Your task to perform on an android device: When is my next appointment? Image 0: 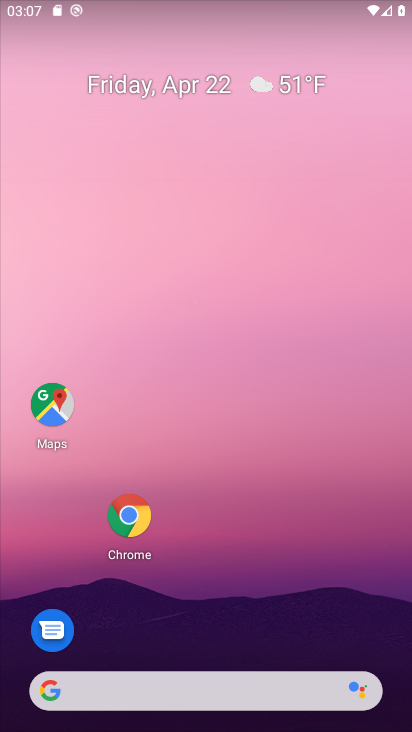
Step 0: click (386, 190)
Your task to perform on an android device: When is my next appointment? Image 1: 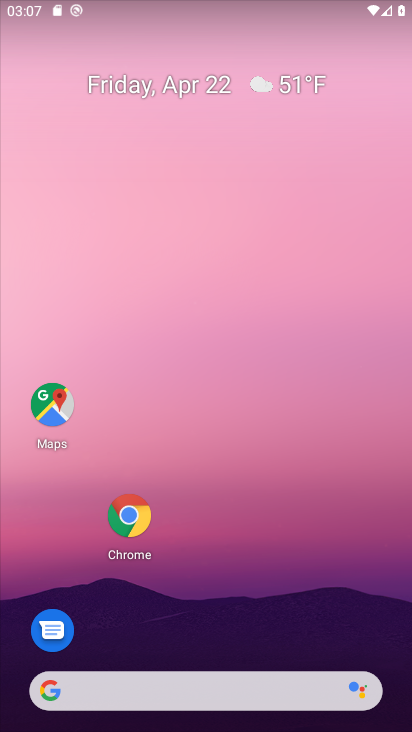
Step 1: drag from (336, 473) to (335, 118)
Your task to perform on an android device: When is my next appointment? Image 2: 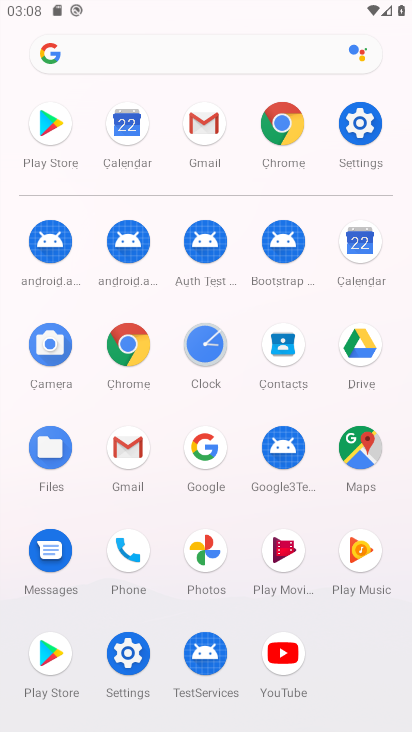
Step 2: click (350, 243)
Your task to perform on an android device: When is my next appointment? Image 3: 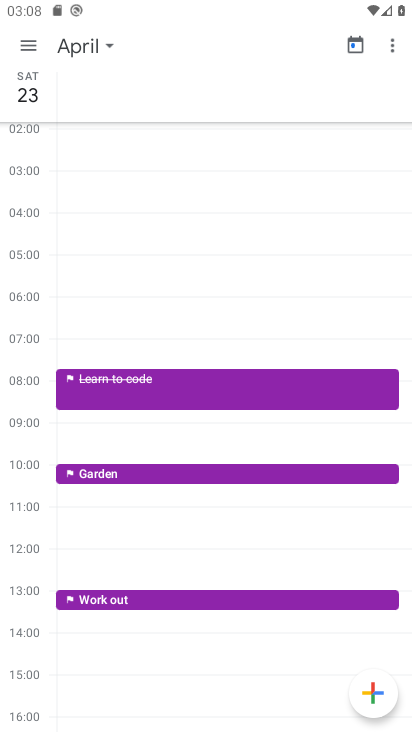
Step 3: click (32, 37)
Your task to perform on an android device: When is my next appointment? Image 4: 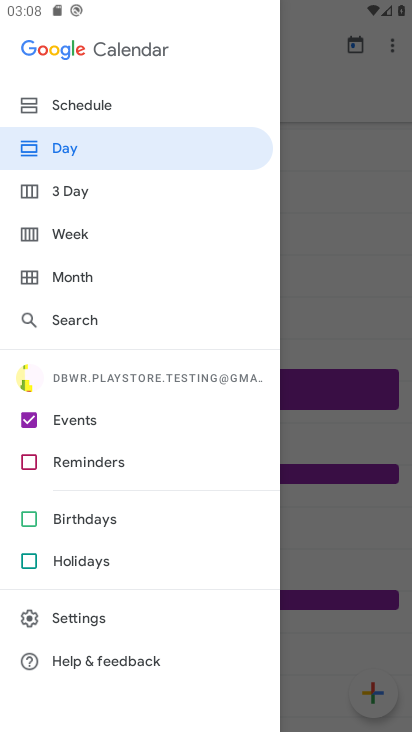
Step 4: click (76, 110)
Your task to perform on an android device: When is my next appointment? Image 5: 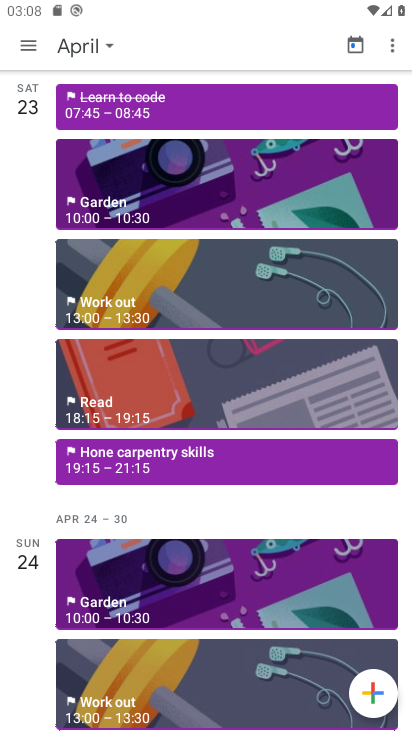
Step 5: click (21, 45)
Your task to perform on an android device: When is my next appointment? Image 6: 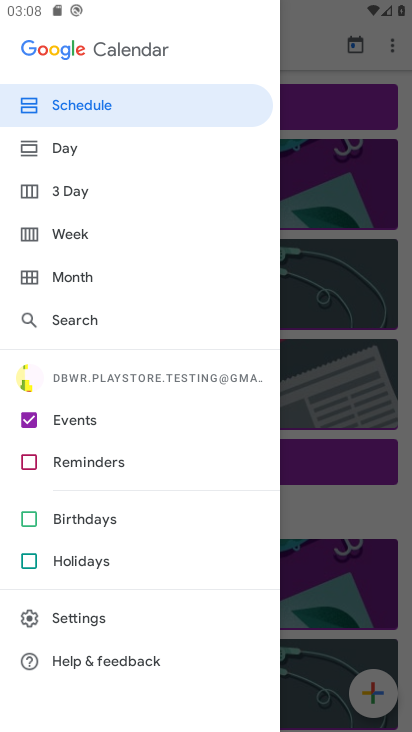
Step 6: click (325, 107)
Your task to perform on an android device: When is my next appointment? Image 7: 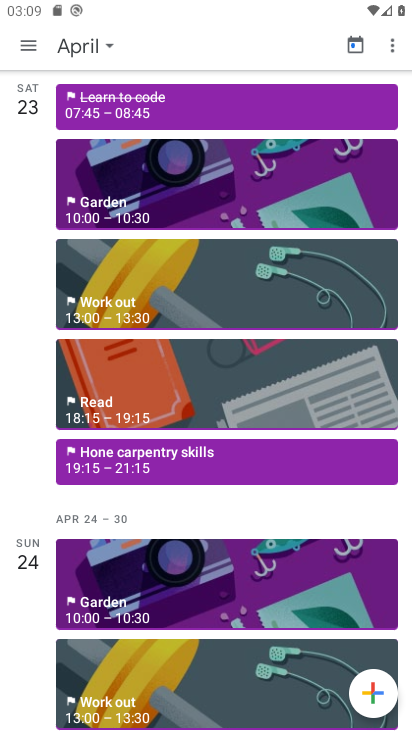
Step 7: click (112, 46)
Your task to perform on an android device: When is my next appointment? Image 8: 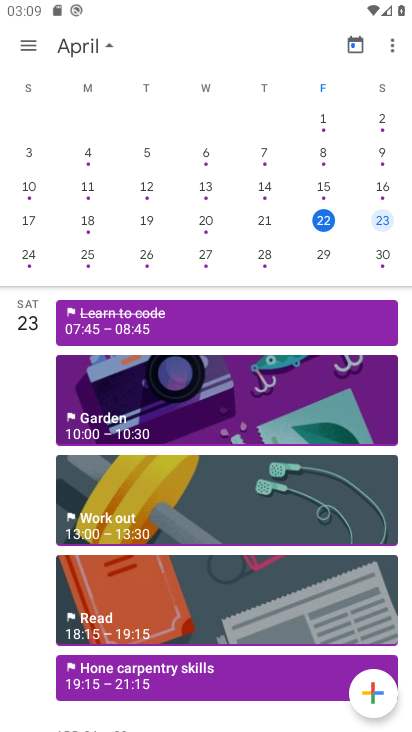
Step 8: task complete